Your task to perform on an android device: Go to network settings Image 0: 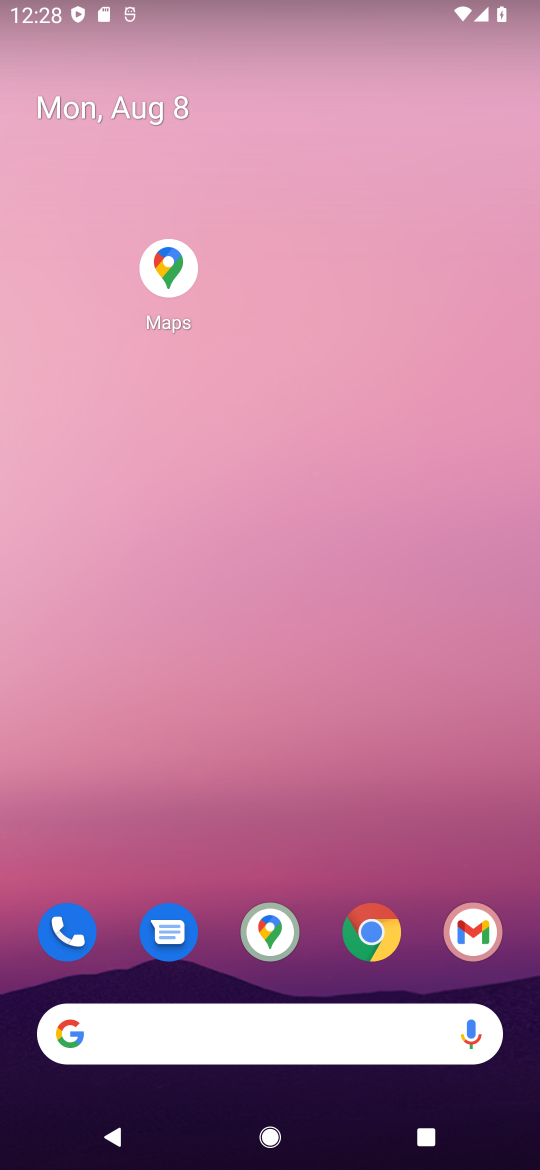
Step 0: drag from (363, 5) to (264, 999)
Your task to perform on an android device: Go to network settings Image 1: 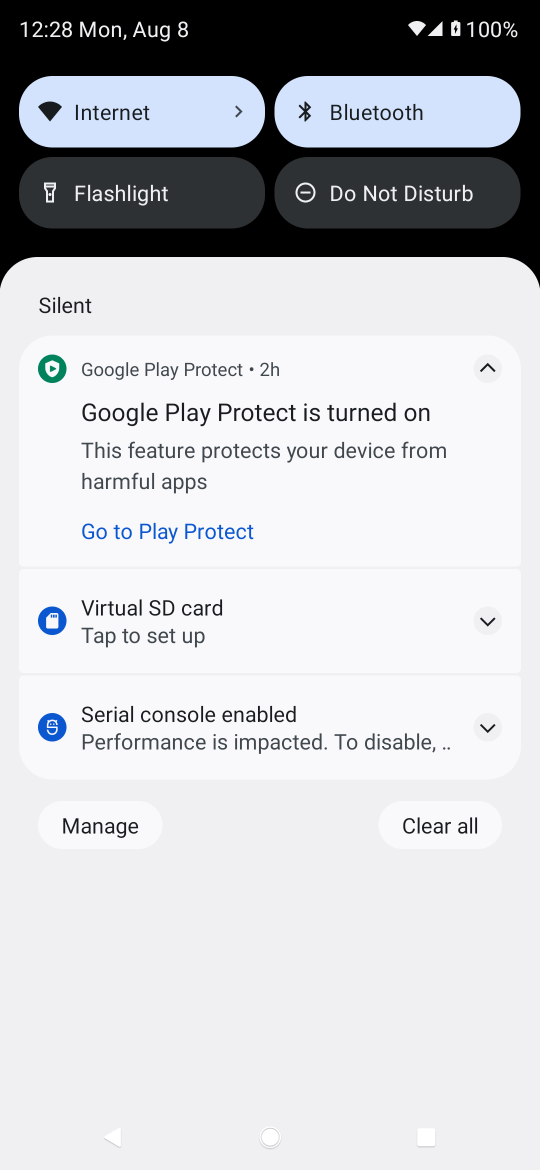
Step 1: click (166, 123)
Your task to perform on an android device: Go to network settings Image 2: 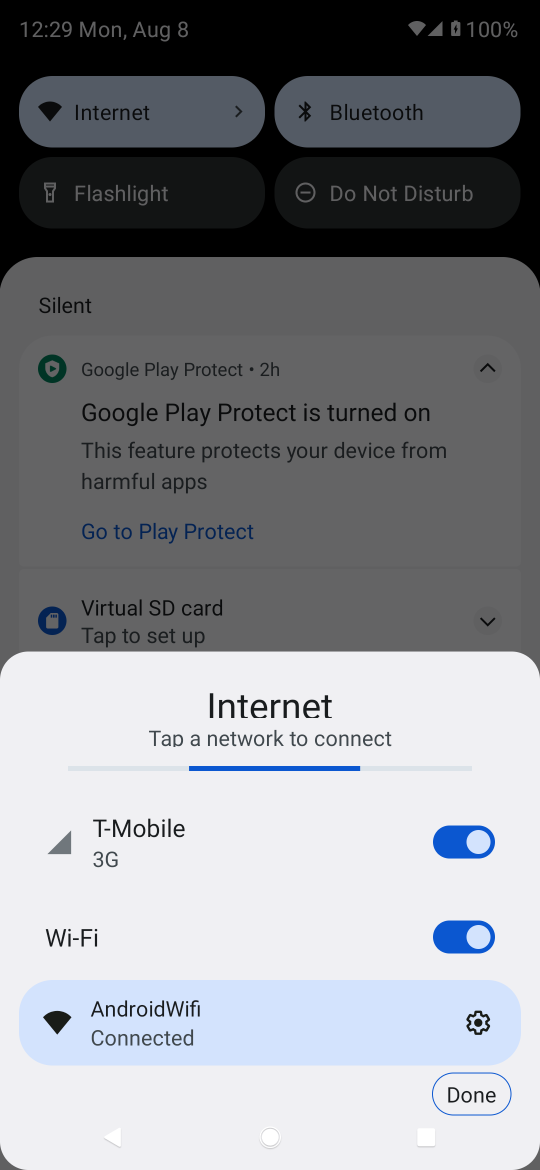
Step 2: click (260, 837)
Your task to perform on an android device: Go to network settings Image 3: 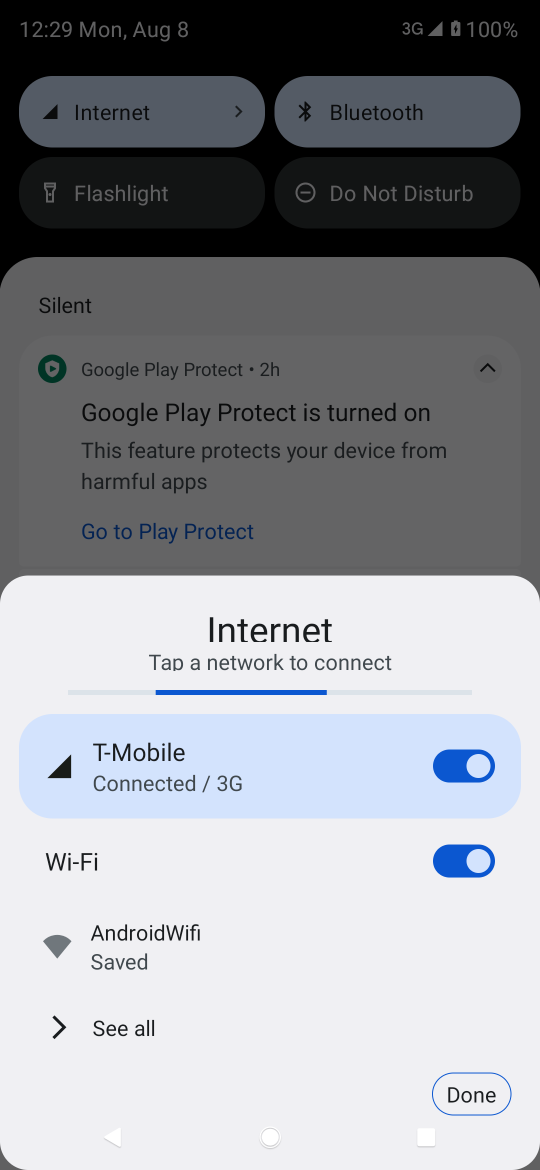
Step 3: click (240, 766)
Your task to perform on an android device: Go to network settings Image 4: 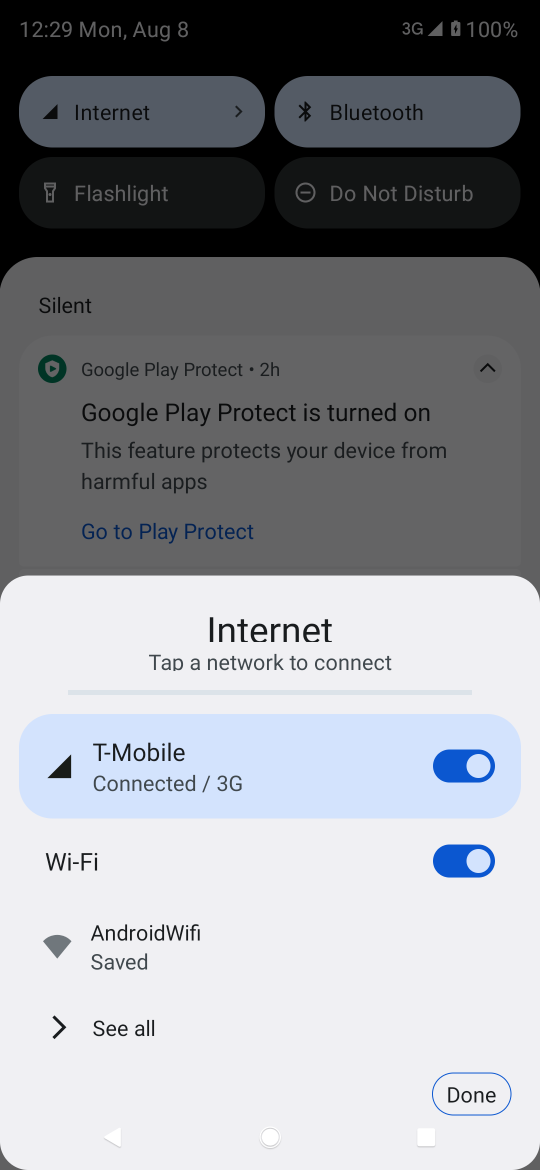
Step 4: click (187, 1029)
Your task to perform on an android device: Go to network settings Image 5: 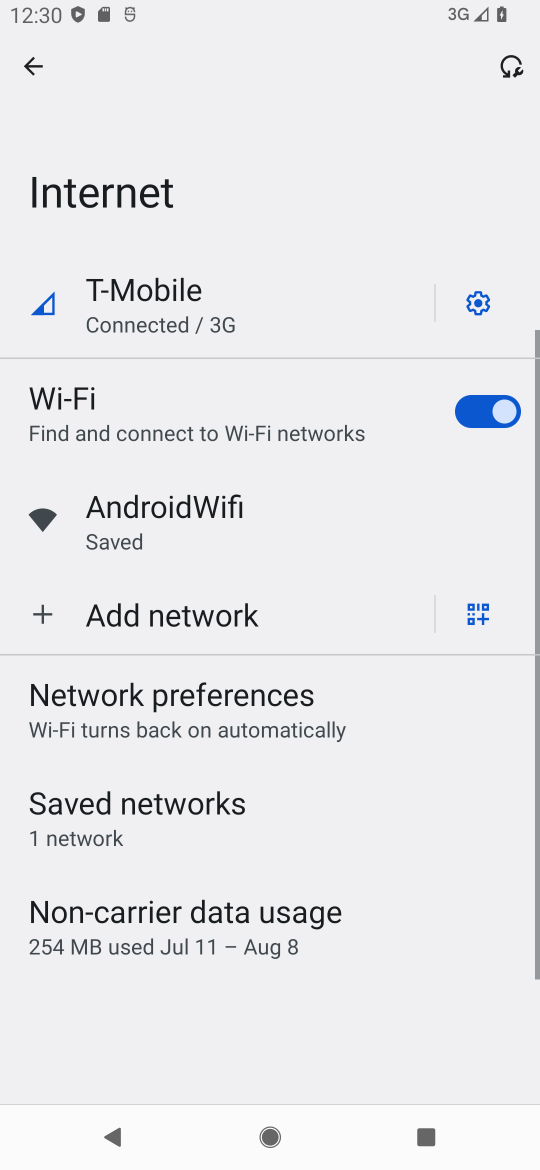
Step 5: task complete